Your task to perform on an android device: Open accessibility settings Image 0: 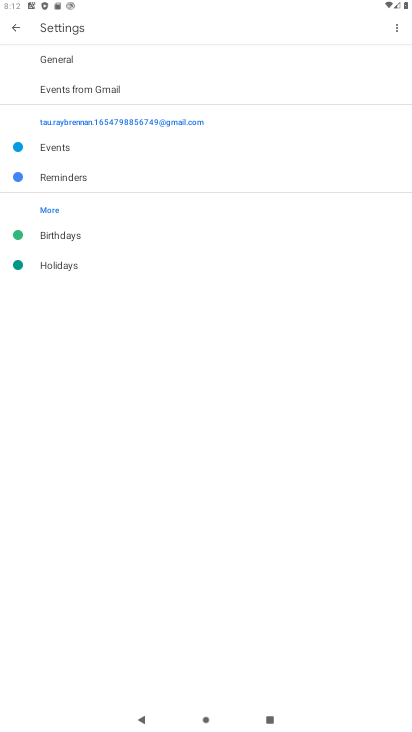
Step 0: press home button
Your task to perform on an android device: Open accessibility settings Image 1: 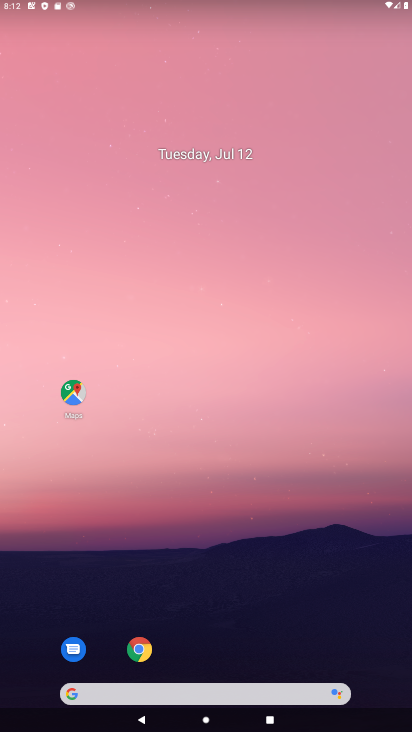
Step 1: drag from (218, 645) to (185, 160)
Your task to perform on an android device: Open accessibility settings Image 2: 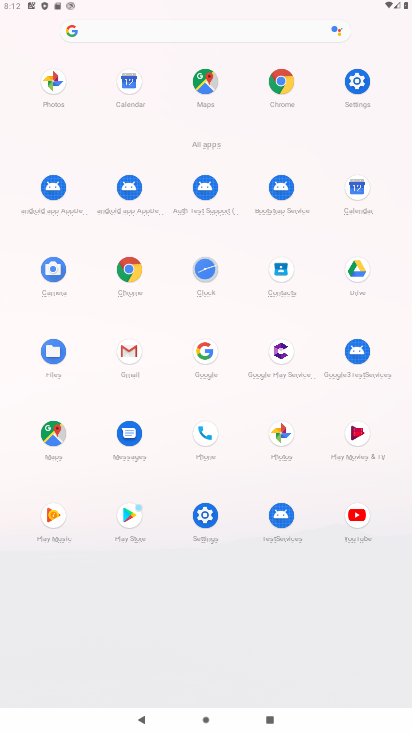
Step 2: click (355, 80)
Your task to perform on an android device: Open accessibility settings Image 3: 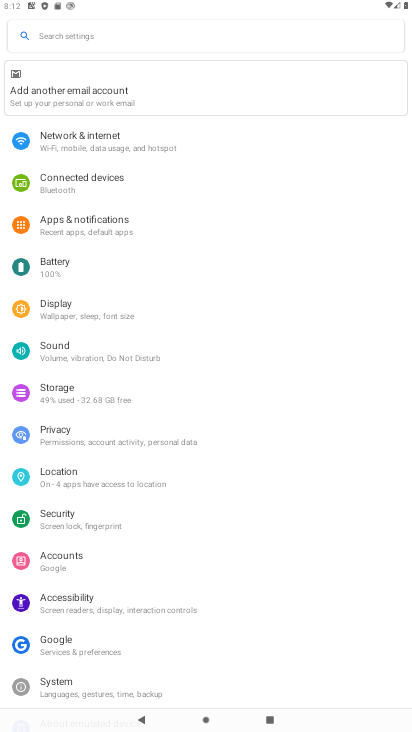
Step 3: click (85, 607)
Your task to perform on an android device: Open accessibility settings Image 4: 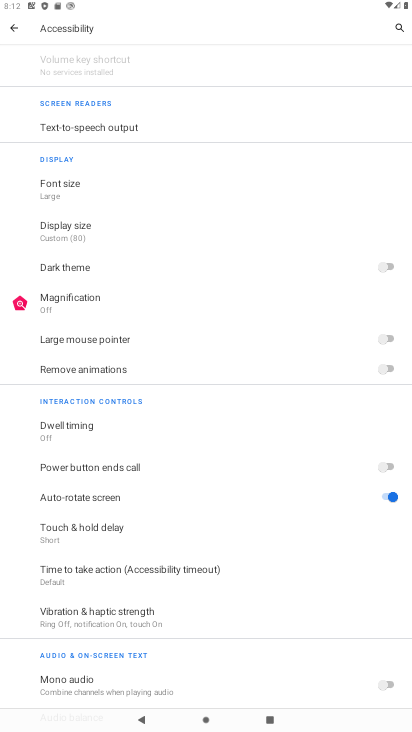
Step 4: task complete